Your task to perform on an android device: see tabs open on other devices in the chrome app Image 0: 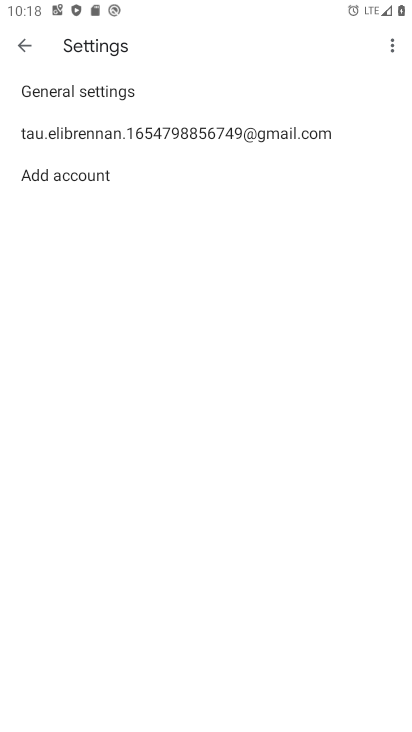
Step 0: press home button
Your task to perform on an android device: see tabs open on other devices in the chrome app Image 1: 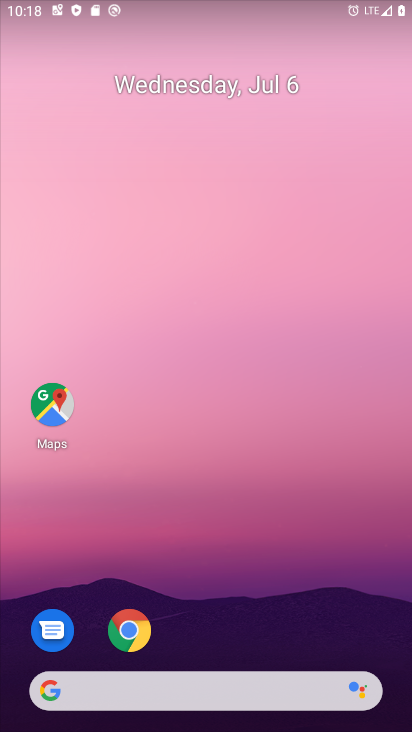
Step 1: click (126, 631)
Your task to perform on an android device: see tabs open on other devices in the chrome app Image 2: 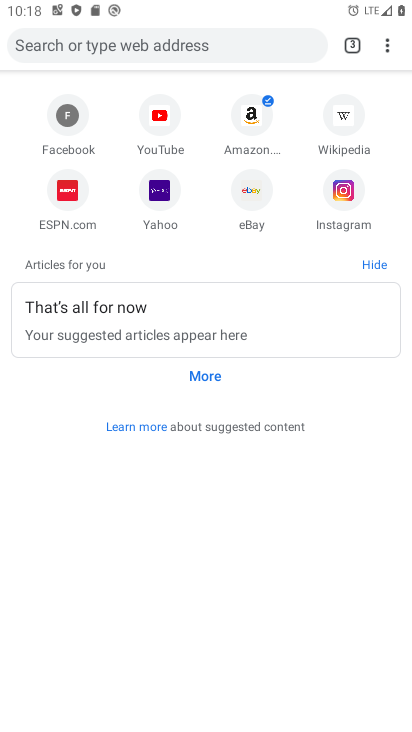
Step 2: click (385, 52)
Your task to perform on an android device: see tabs open on other devices in the chrome app Image 3: 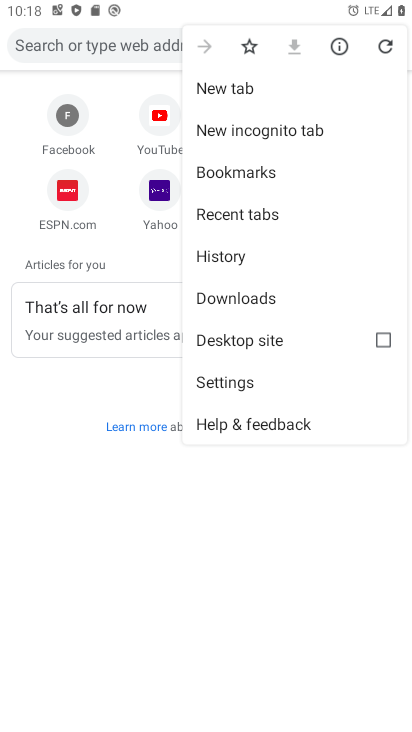
Step 3: click (229, 214)
Your task to perform on an android device: see tabs open on other devices in the chrome app Image 4: 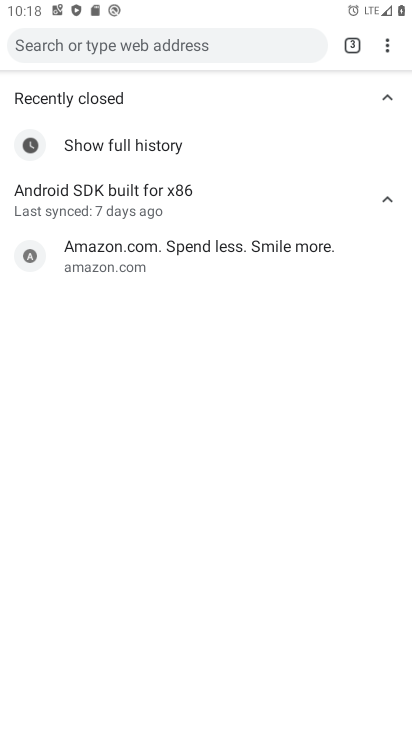
Step 4: task complete